Your task to perform on an android device: clear all cookies in the chrome app Image 0: 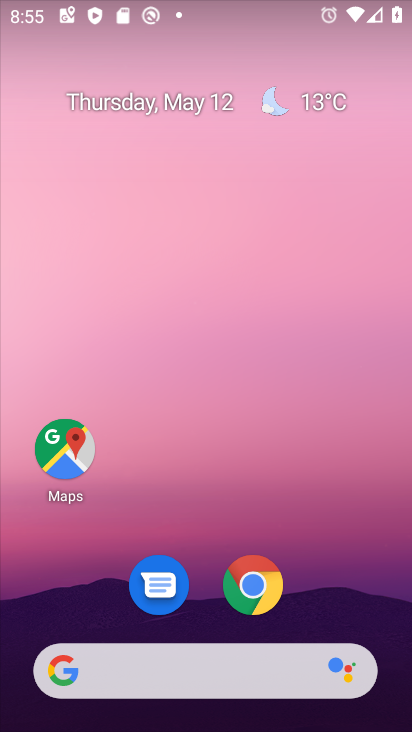
Step 0: click (251, 575)
Your task to perform on an android device: clear all cookies in the chrome app Image 1: 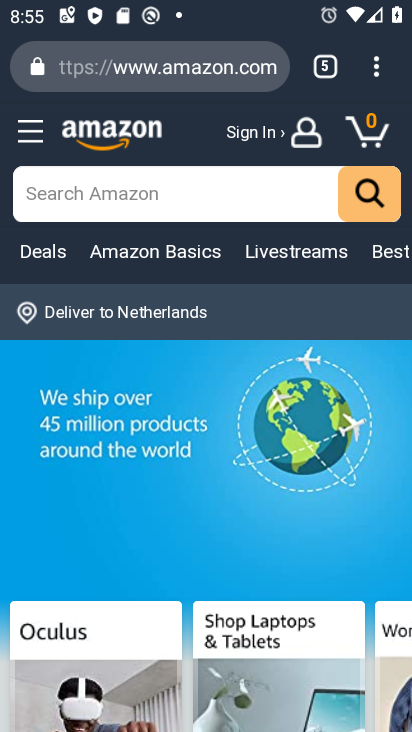
Step 1: drag from (374, 75) to (167, 369)
Your task to perform on an android device: clear all cookies in the chrome app Image 2: 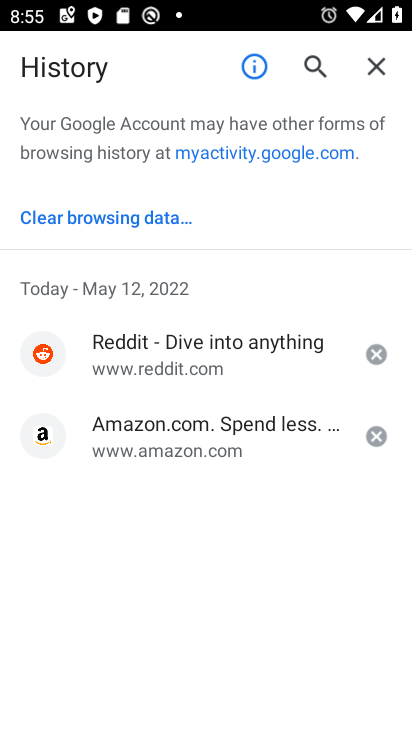
Step 2: click (154, 214)
Your task to perform on an android device: clear all cookies in the chrome app Image 3: 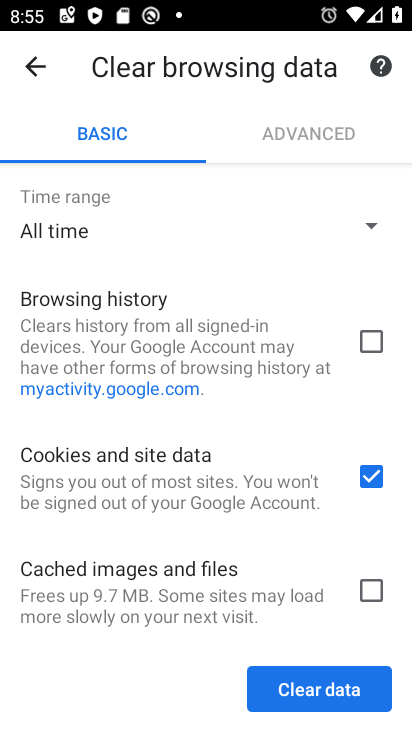
Step 3: click (338, 685)
Your task to perform on an android device: clear all cookies in the chrome app Image 4: 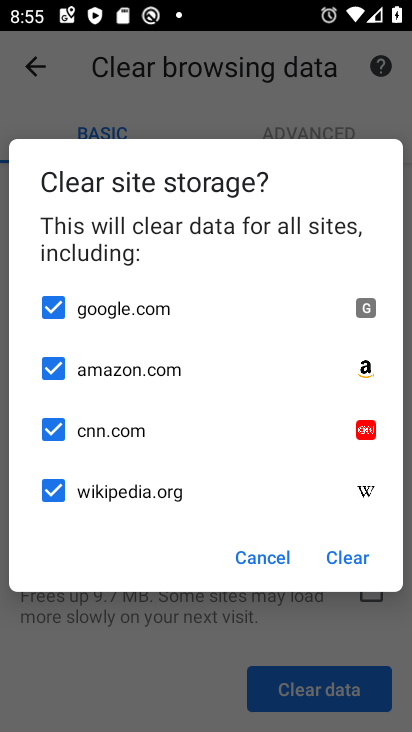
Step 4: click (356, 558)
Your task to perform on an android device: clear all cookies in the chrome app Image 5: 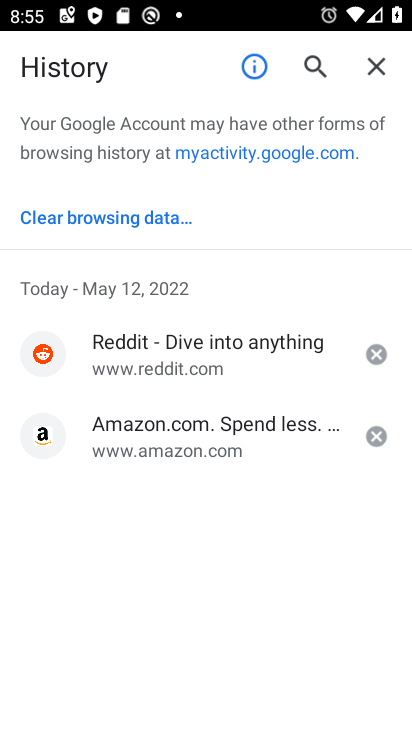
Step 5: task complete